Your task to perform on an android device: check battery use Image 0: 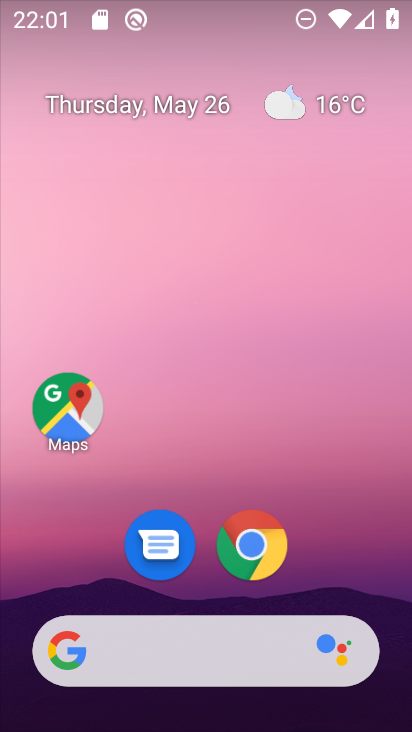
Step 0: drag from (312, 529) to (232, 90)
Your task to perform on an android device: check battery use Image 1: 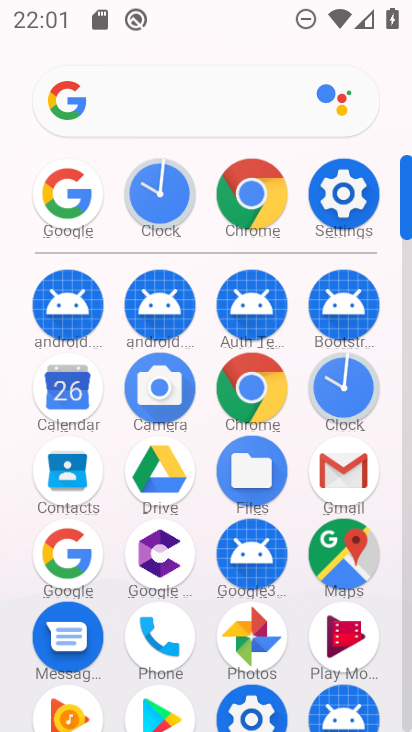
Step 1: click (335, 194)
Your task to perform on an android device: check battery use Image 2: 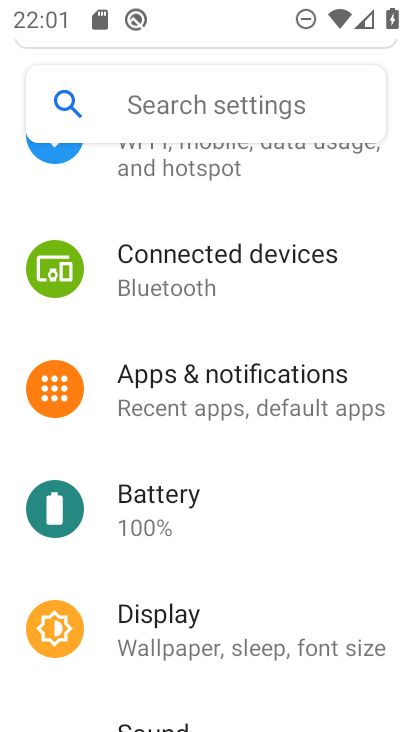
Step 2: drag from (235, 628) to (245, 503)
Your task to perform on an android device: check battery use Image 3: 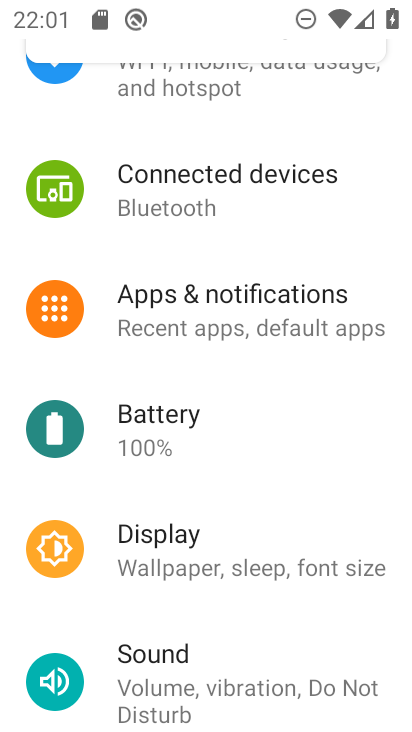
Step 3: click (180, 438)
Your task to perform on an android device: check battery use Image 4: 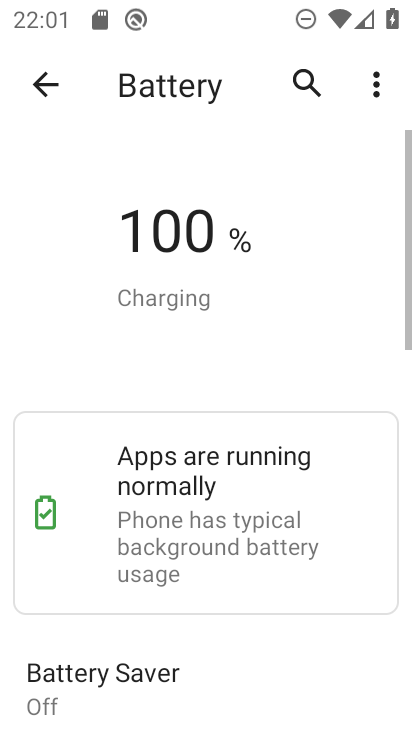
Step 4: click (367, 76)
Your task to perform on an android device: check battery use Image 5: 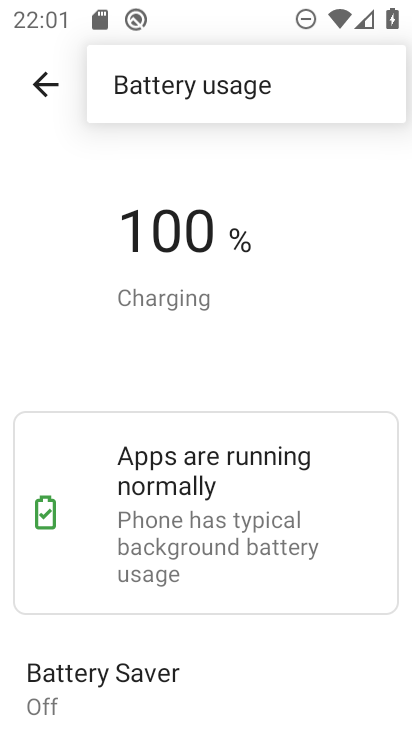
Step 5: click (222, 82)
Your task to perform on an android device: check battery use Image 6: 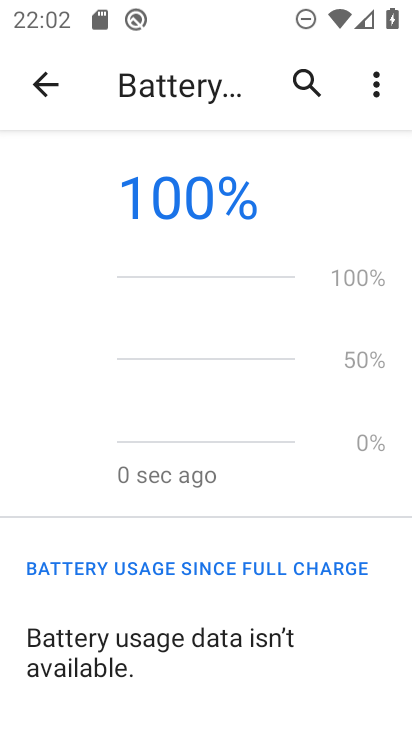
Step 6: task complete